Your task to perform on an android device: Open sound settings Image 0: 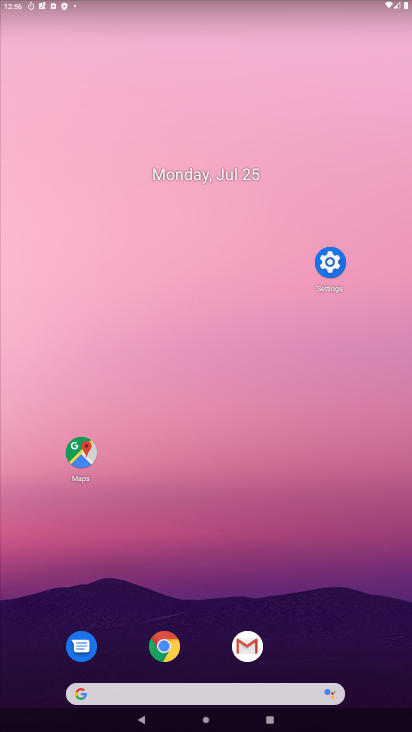
Step 0: click (327, 269)
Your task to perform on an android device: Open sound settings Image 1: 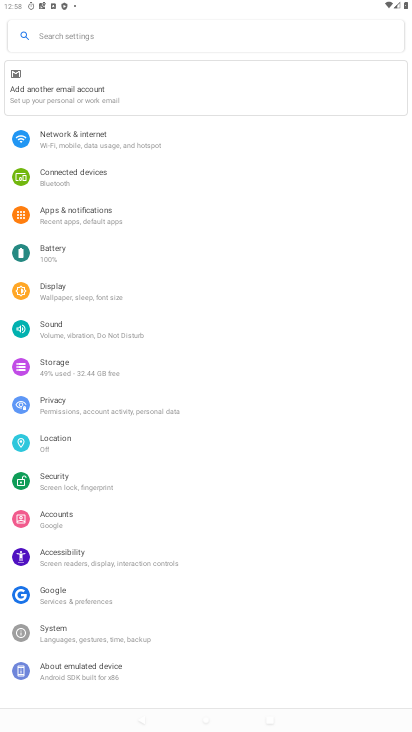
Step 1: click (69, 331)
Your task to perform on an android device: Open sound settings Image 2: 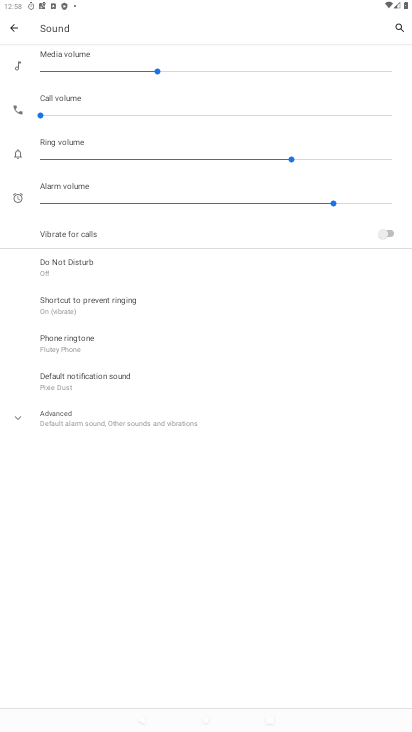
Step 2: task complete